Your task to perform on an android device: turn on bluetooth scan Image 0: 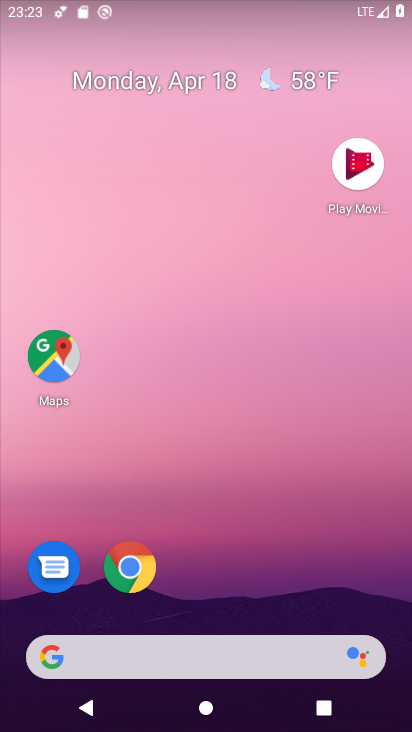
Step 0: drag from (249, 614) to (287, 329)
Your task to perform on an android device: turn on bluetooth scan Image 1: 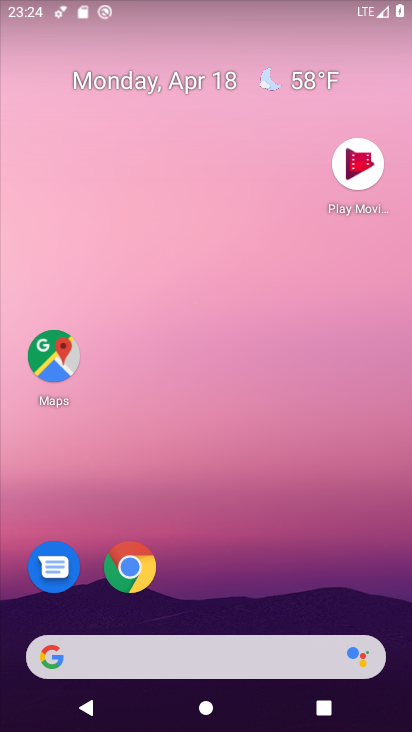
Step 1: drag from (227, 557) to (240, 27)
Your task to perform on an android device: turn on bluetooth scan Image 2: 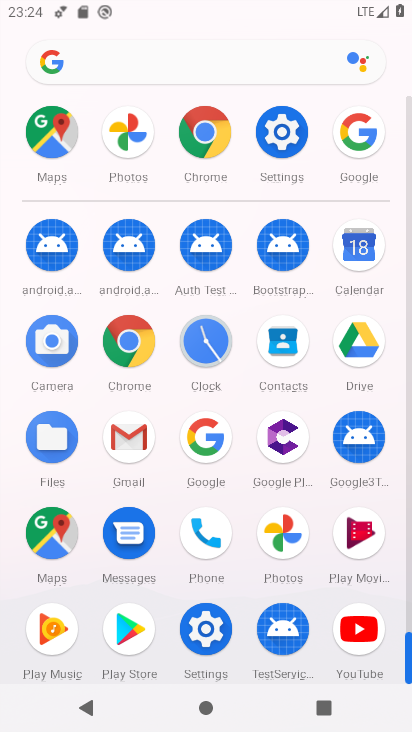
Step 2: click (194, 637)
Your task to perform on an android device: turn on bluetooth scan Image 3: 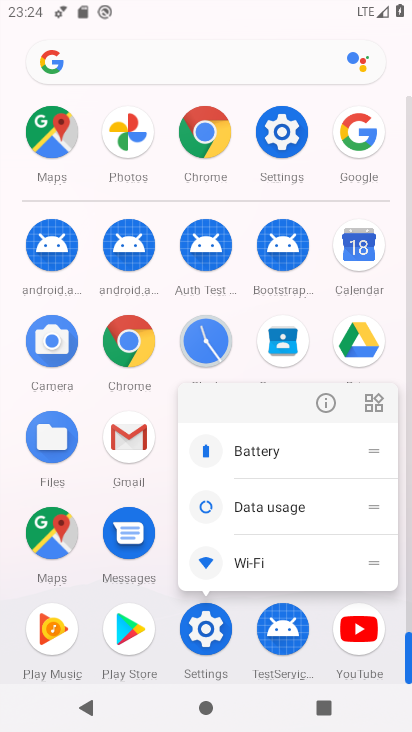
Step 3: click (329, 410)
Your task to perform on an android device: turn on bluetooth scan Image 4: 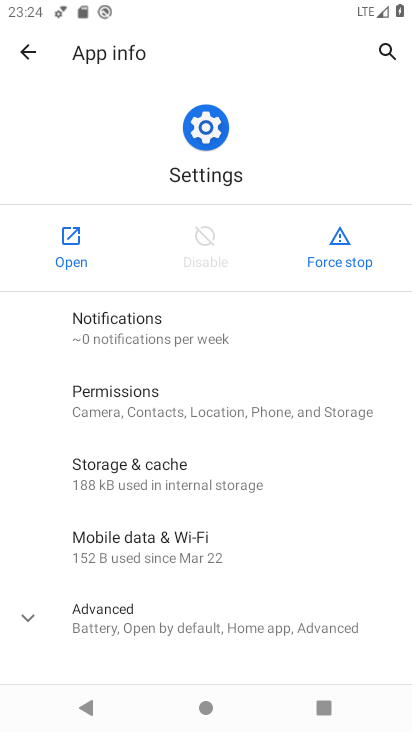
Step 4: click (70, 257)
Your task to perform on an android device: turn on bluetooth scan Image 5: 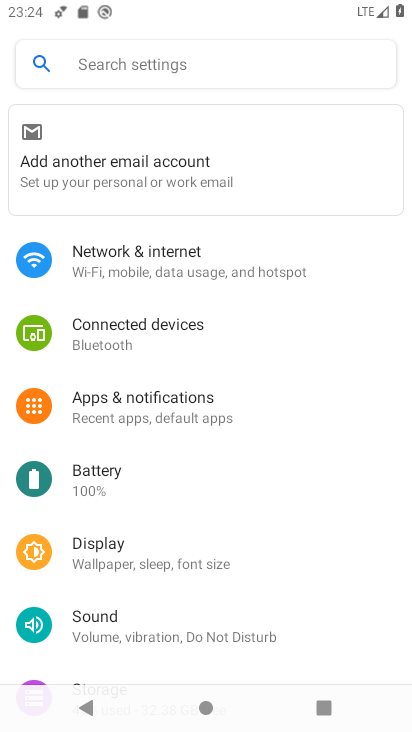
Step 5: click (224, 65)
Your task to perform on an android device: turn on bluetooth scan Image 6: 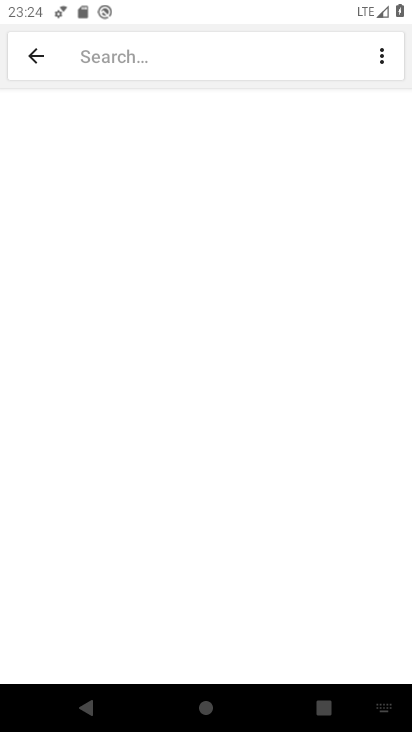
Step 6: type "bluetooth scan"
Your task to perform on an android device: turn on bluetooth scan Image 7: 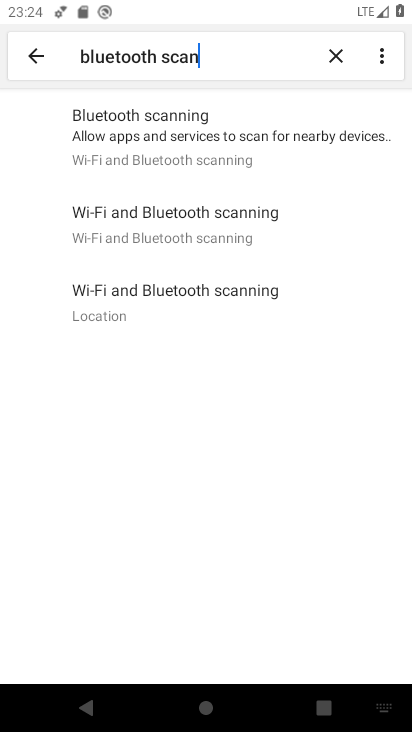
Step 7: click (172, 151)
Your task to perform on an android device: turn on bluetooth scan Image 8: 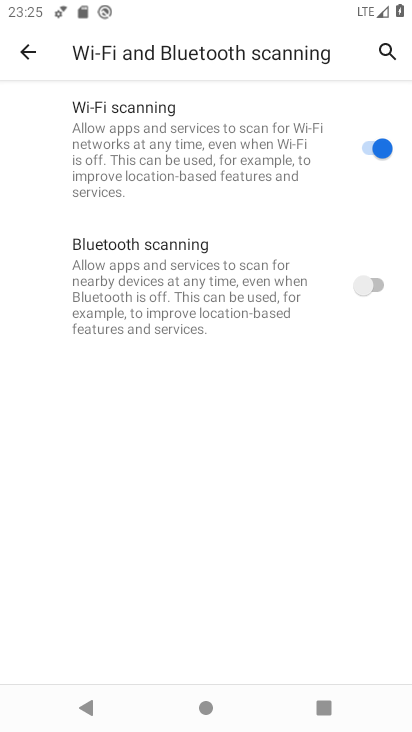
Step 8: click (355, 277)
Your task to perform on an android device: turn on bluetooth scan Image 9: 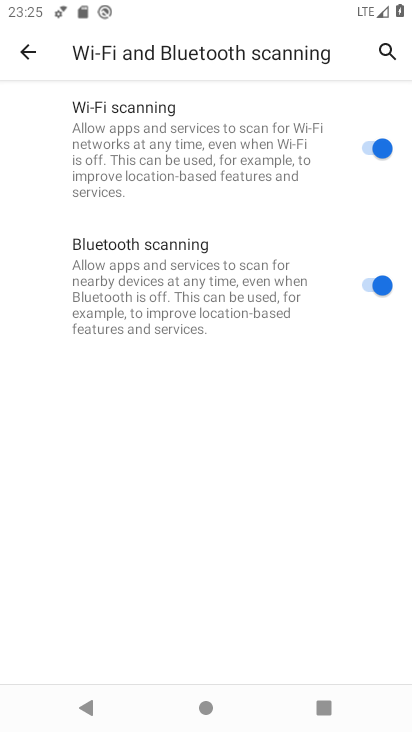
Step 9: task complete